Your task to perform on an android device: Open Amazon Image 0: 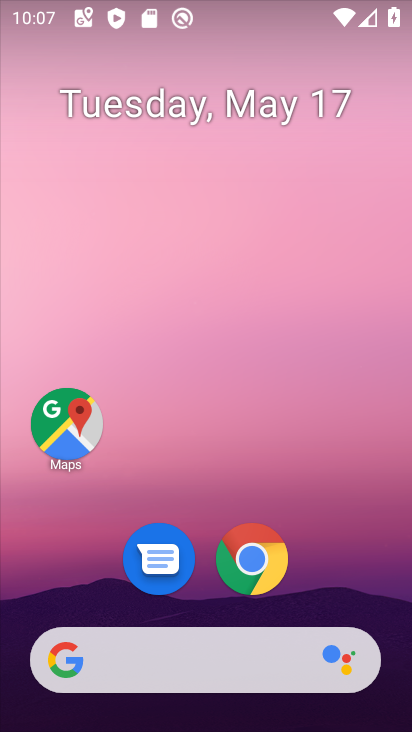
Step 0: click (210, 667)
Your task to perform on an android device: Open Amazon Image 1: 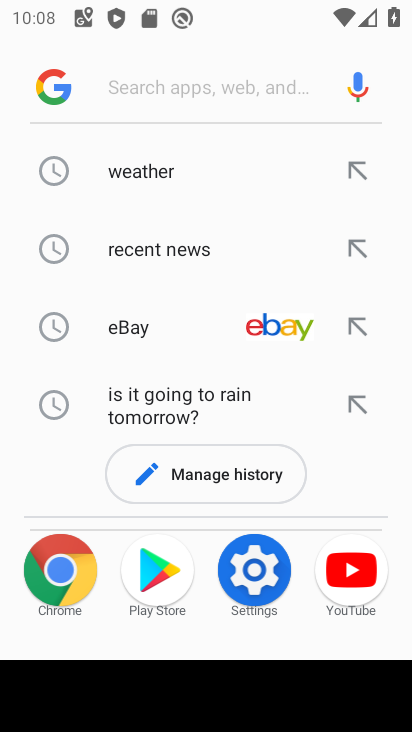
Step 1: type "amazon"
Your task to perform on an android device: Open Amazon Image 2: 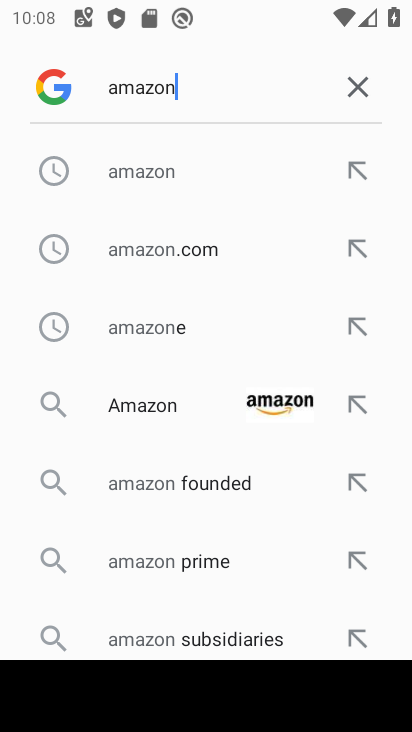
Step 2: click (299, 395)
Your task to perform on an android device: Open Amazon Image 3: 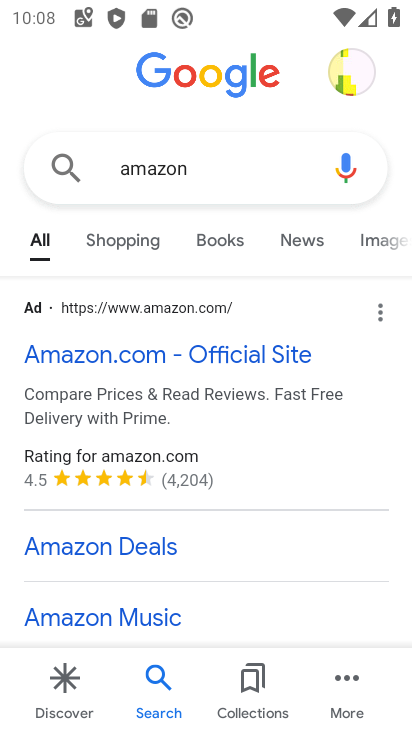
Step 3: click (165, 304)
Your task to perform on an android device: Open Amazon Image 4: 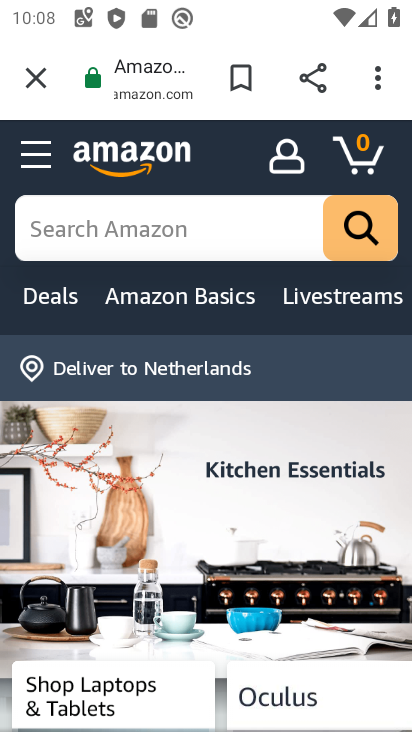
Step 4: task complete